Your task to perform on an android device: check the backup settings in the google photos Image 0: 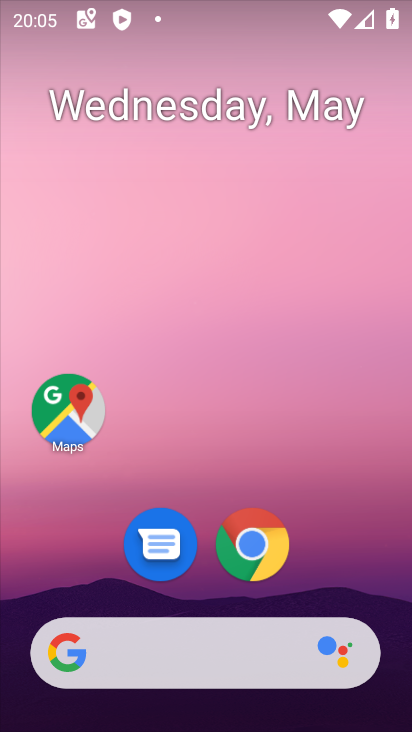
Step 0: drag from (196, 594) to (171, 114)
Your task to perform on an android device: check the backup settings in the google photos Image 1: 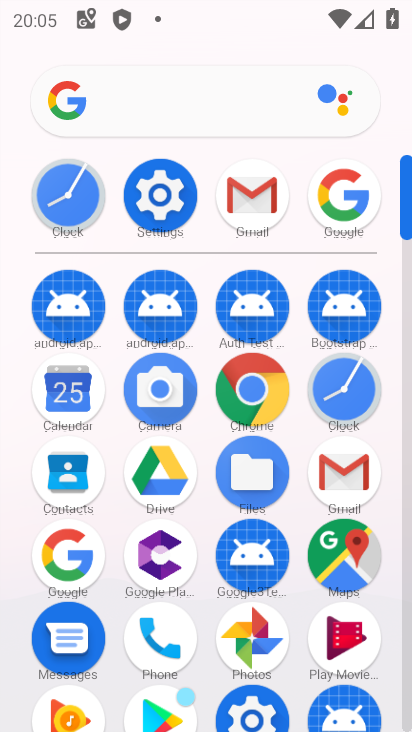
Step 1: click (242, 645)
Your task to perform on an android device: check the backup settings in the google photos Image 2: 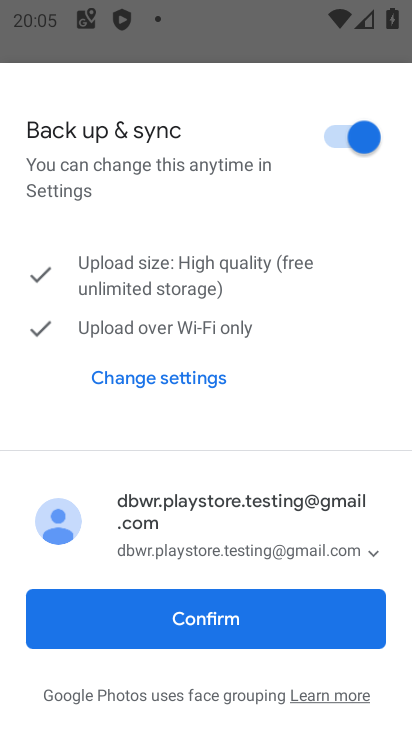
Step 2: click (197, 377)
Your task to perform on an android device: check the backup settings in the google photos Image 3: 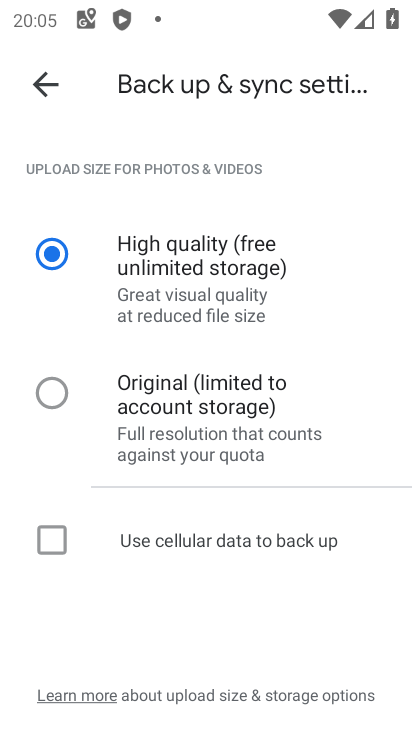
Step 3: click (197, 377)
Your task to perform on an android device: check the backup settings in the google photos Image 4: 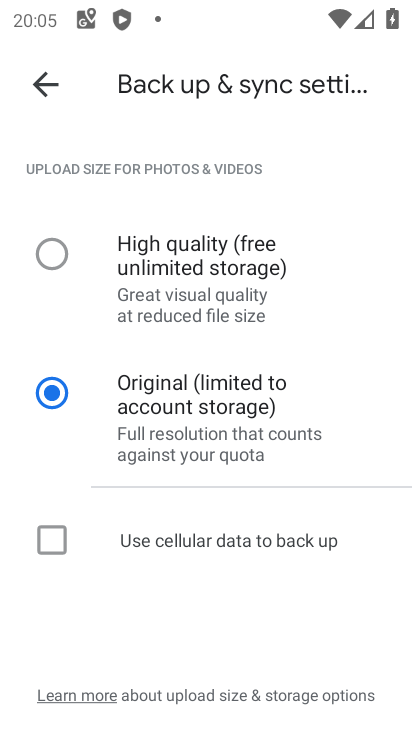
Step 4: task complete